Your task to perform on an android device: create a new album in the google photos Image 0: 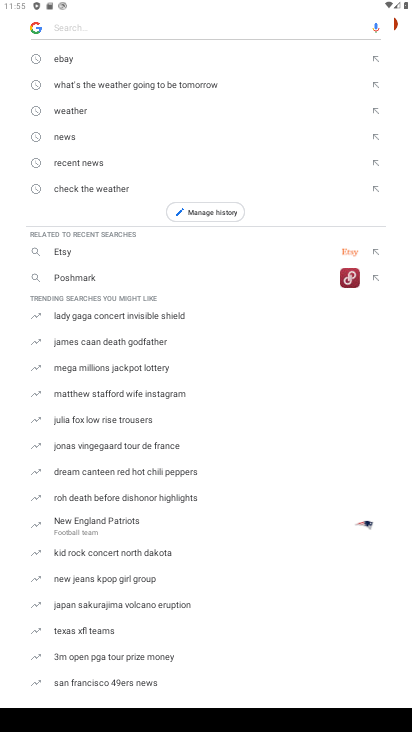
Step 0: click (385, 517)
Your task to perform on an android device: create a new album in the google photos Image 1: 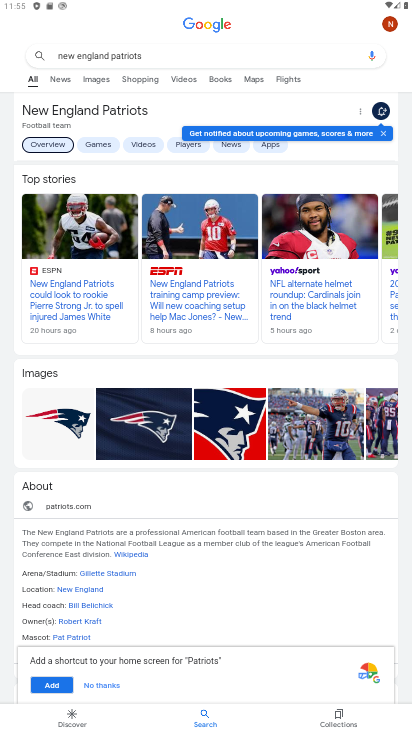
Step 1: press back button
Your task to perform on an android device: create a new album in the google photos Image 2: 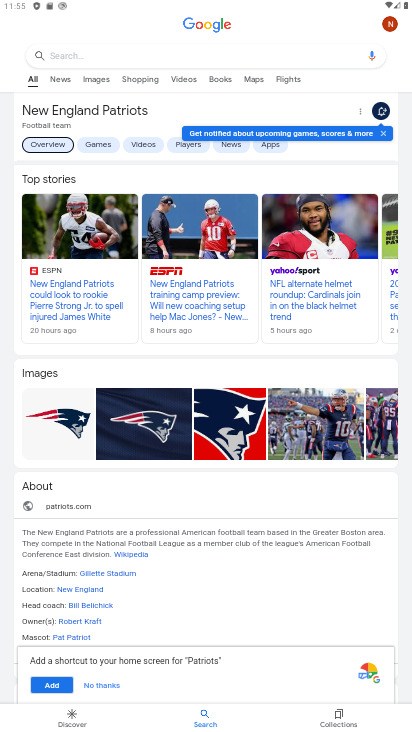
Step 2: press back button
Your task to perform on an android device: create a new album in the google photos Image 3: 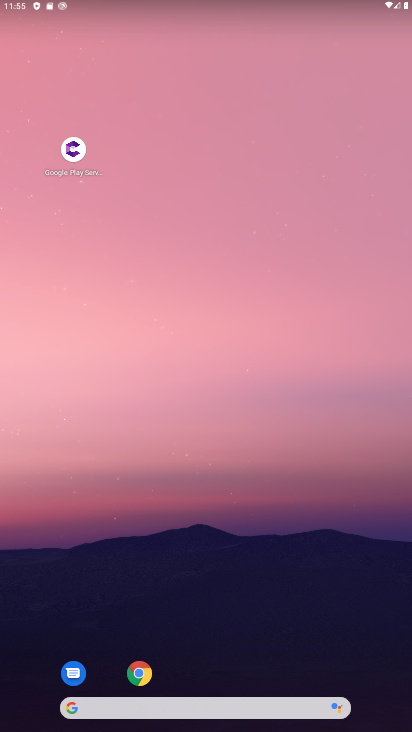
Step 3: click (264, 169)
Your task to perform on an android device: create a new album in the google photos Image 4: 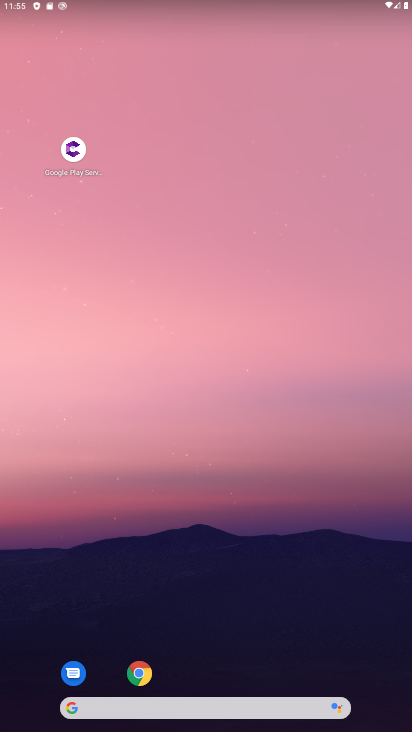
Step 4: click (197, 116)
Your task to perform on an android device: create a new album in the google photos Image 5: 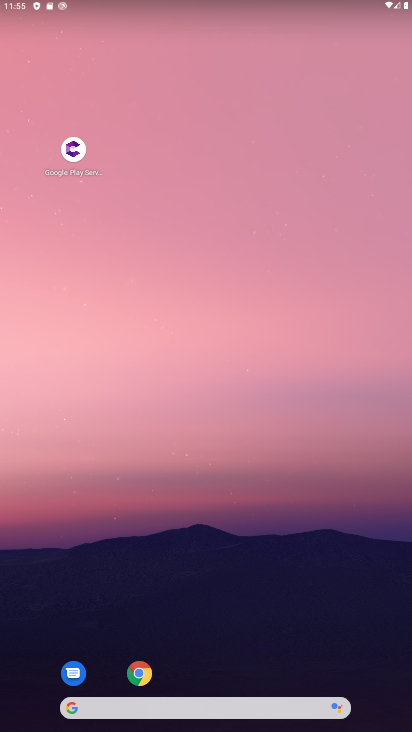
Step 5: drag from (272, 479) to (261, 17)
Your task to perform on an android device: create a new album in the google photos Image 6: 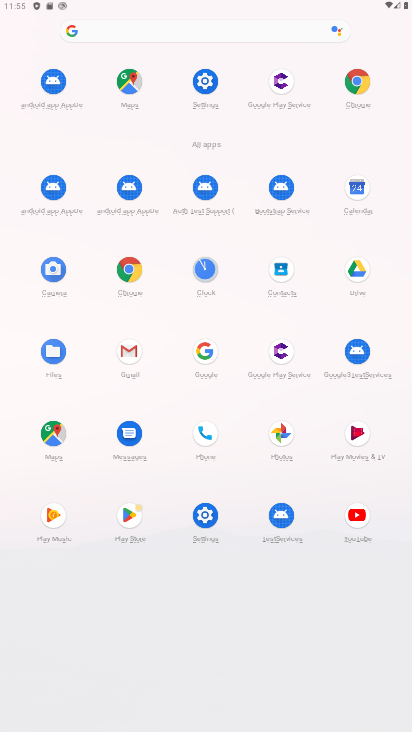
Step 6: drag from (263, 332) to (208, 12)
Your task to perform on an android device: create a new album in the google photos Image 7: 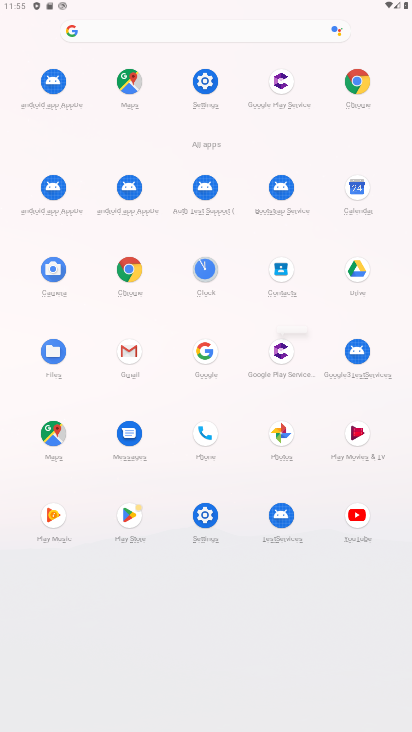
Step 7: click (190, 231)
Your task to perform on an android device: create a new album in the google photos Image 8: 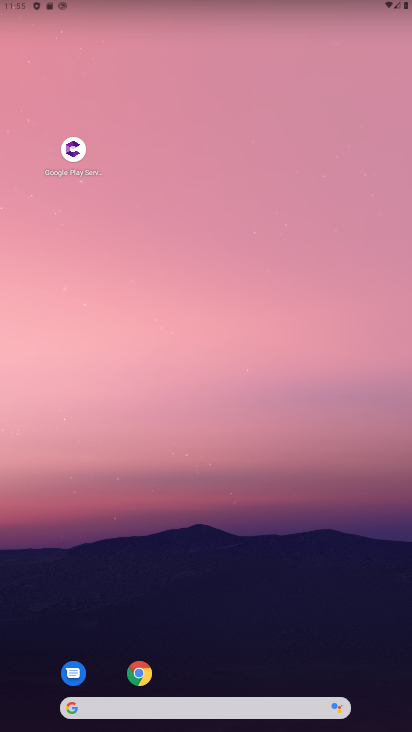
Step 8: click (283, 432)
Your task to perform on an android device: create a new album in the google photos Image 9: 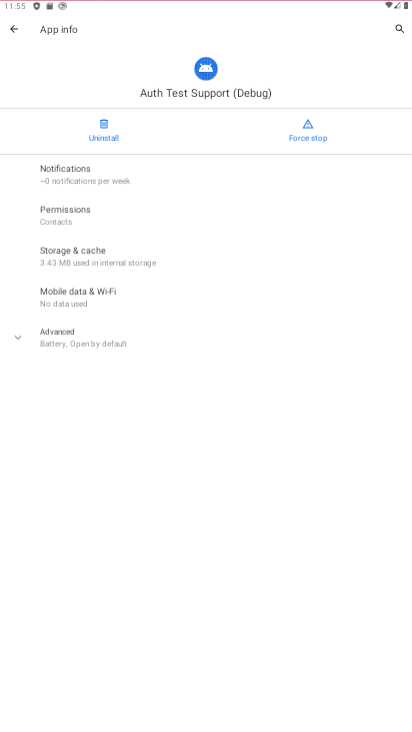
Step 9: click (284, 438)
Your task to perform on an android device: create a new album in the google photos Image 10: 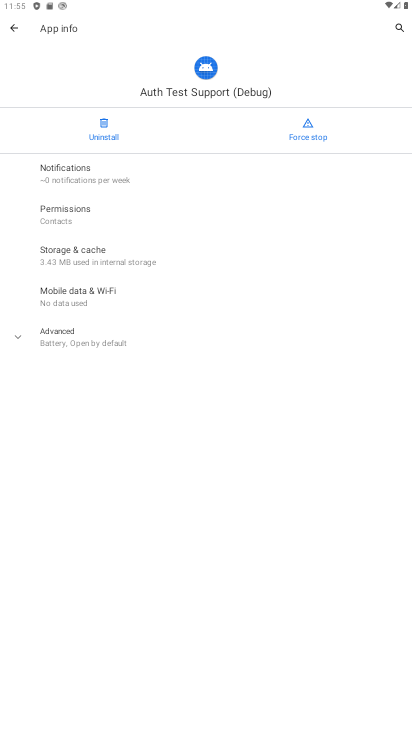
Step 10: click (283, 426)
Your task to perform on an android device: create a new album in the google photos Image 11: 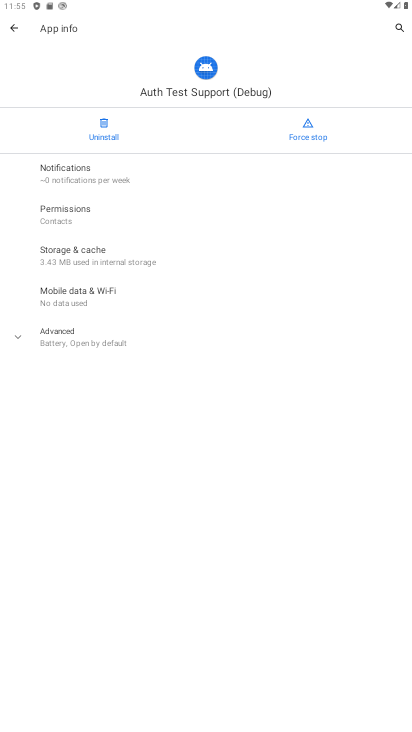
Step 11: click (284, 428)
Your task to perform on an android device: create a new album in the google photos Image 12: 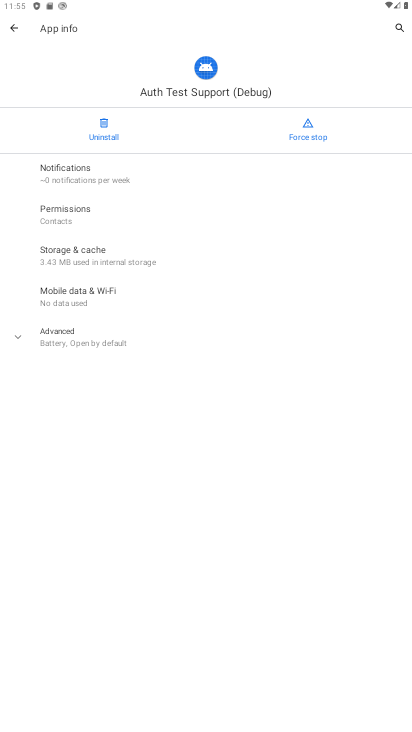
Step 12: drag from (215, 135) to (11, 31)
Your task to perform on an android device: create a new album in the google photos Image 13: 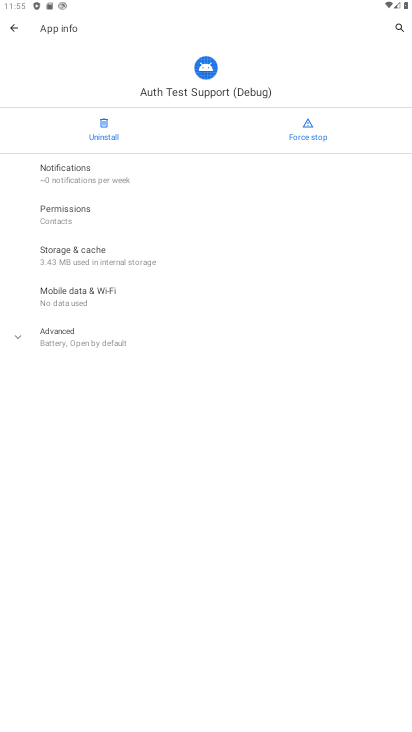
Step 13: click (6, 16)
Your task to perform on an android device: create a new album in the google photos Image 14: 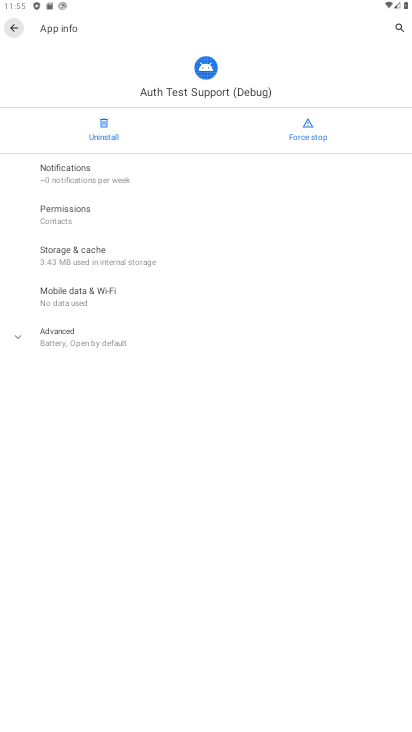
Step 14: click (19, 32)
Your task to perform on an android device: create a new album in the google photos Image 15: 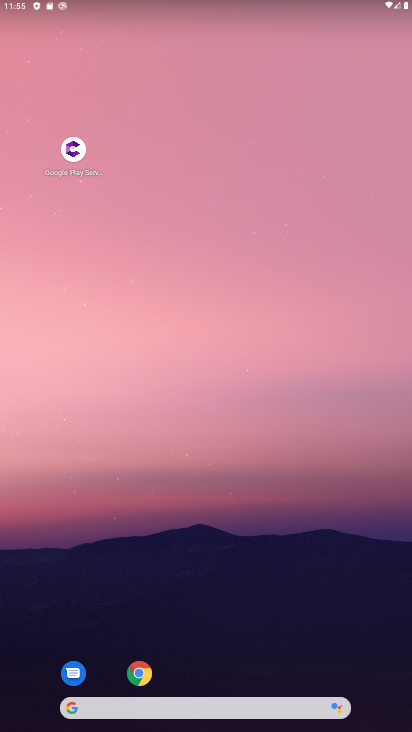
Step 15: drag from (181, 620) to (135, 81)
Your task to perform on an android device: create a new album in the google photos Image 16: 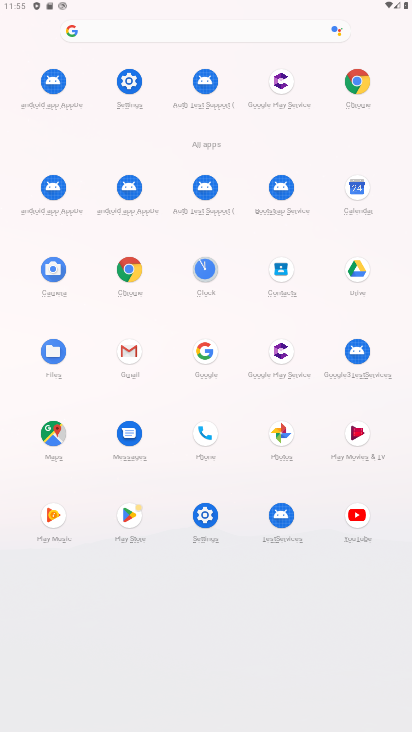
Step 16: click (279, 426)
Your task to perform on an android device: create a new album in the google photos Image 17: 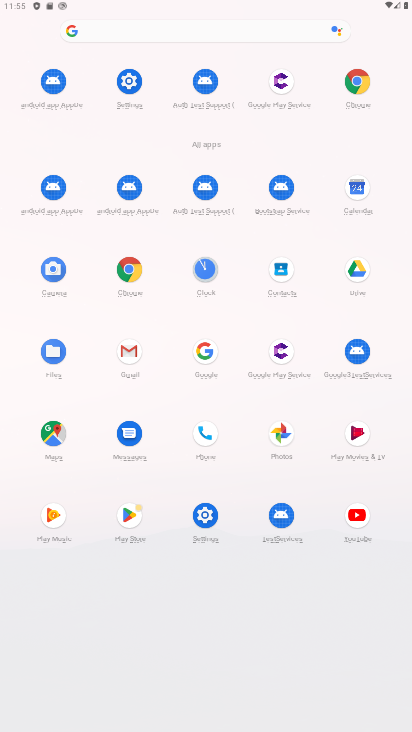
Step 17: click (281, 424)
Your task to perform on an android device: create a new album in the google photos Image 18: 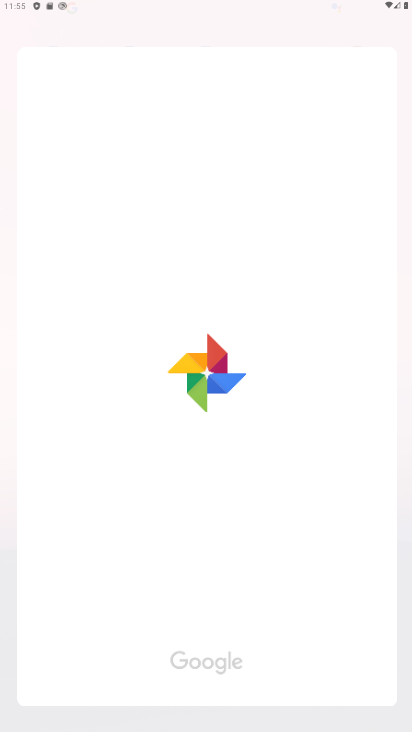
Step 18: click (283, 426)
Your task to perform on an android device: create a new album in the google photos Image 19: 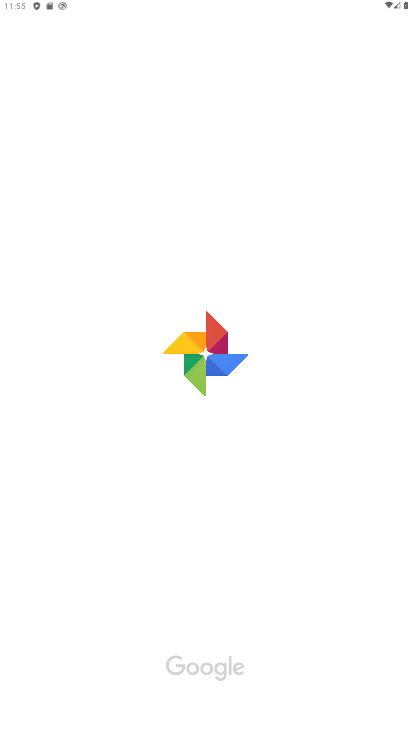
Step 19: click (283, 426)
Your task to perform on an android device: create a new album in the google photos Image 20: 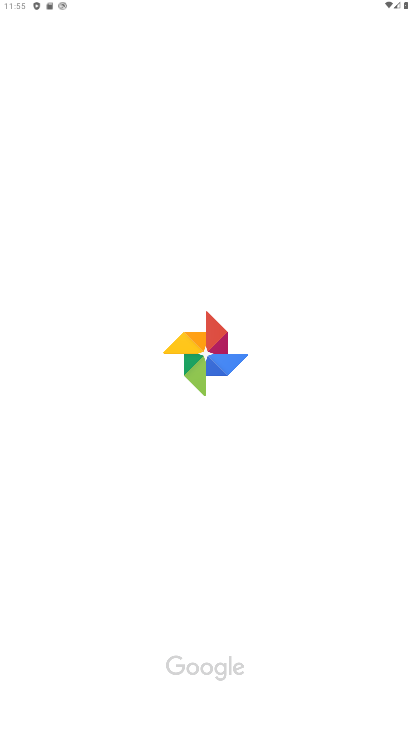
Step 20: click (283, 426)
Your task to perform on an android device: create a new album in the google photos Image 21: 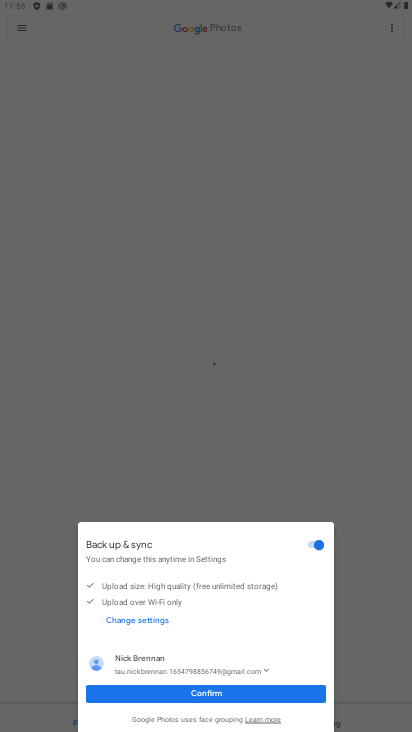
Step 21: click (201, 692)
Your task to perform on an android device: create a new album in the google photos Image 22: 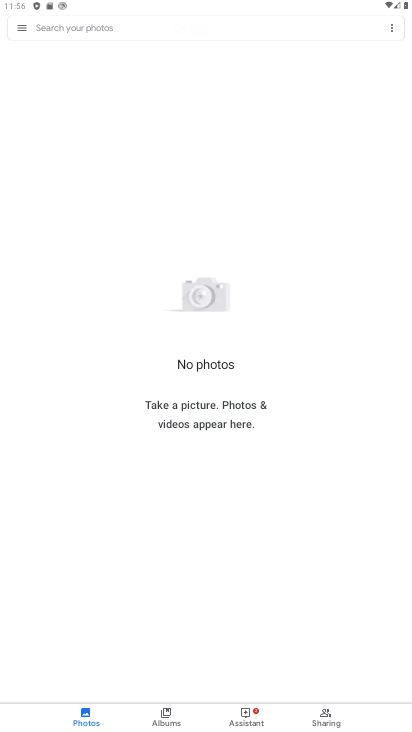
Step 22: click (116, 359)
Your task to perform on an android device: create a new album in the google photos Image 23: 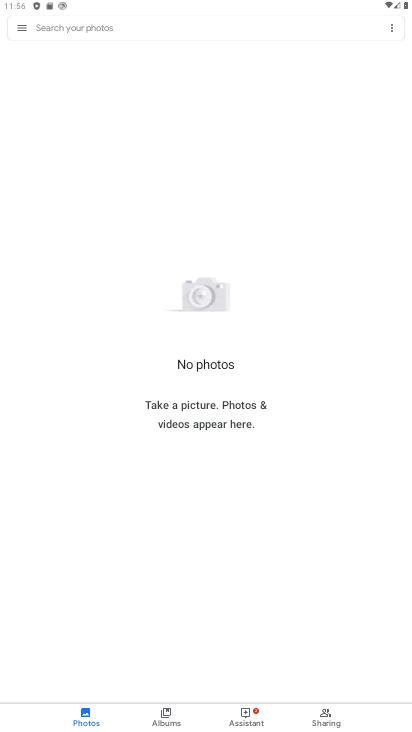
Step 23: click (169, 715)
Your task to perform on an android device: create a new album in the google photos Image 24: 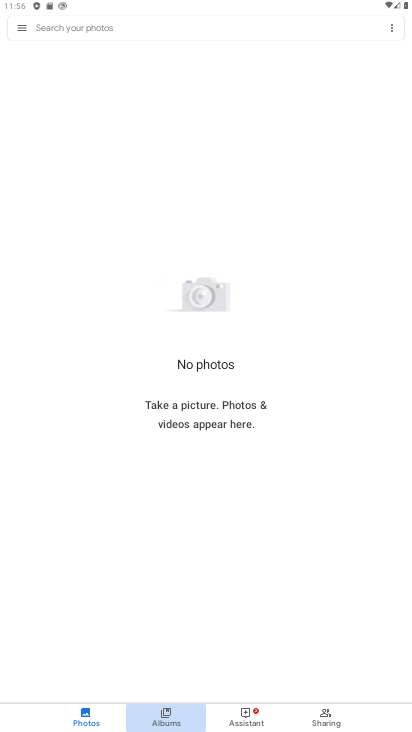
Step 24: click (169, 715)
Your task to perform on an android device: create a new album in the google photos Image 25: 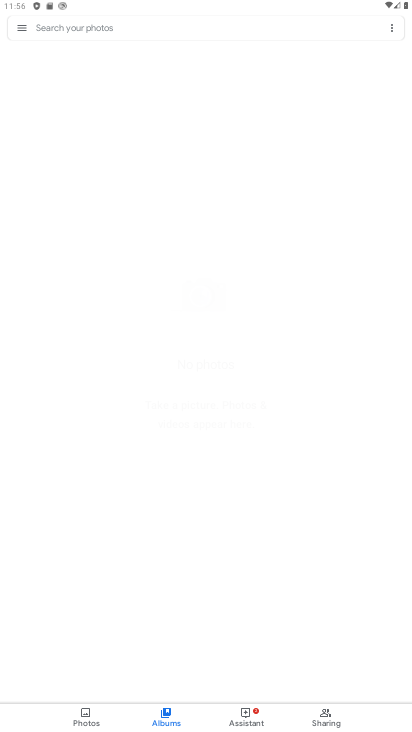
Step 25: click (169, 715)
Your task to perform on an android device: create a new album in the google photos Image 26: 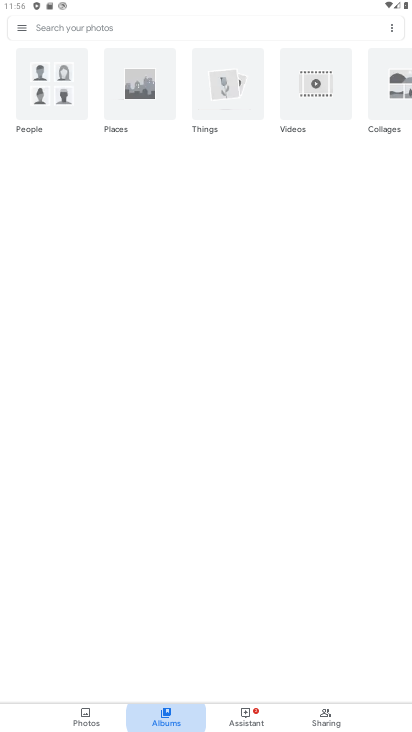
Step 26: click (169, 715)
Your task to perform on an android device: create a new album in the google photos Image 27: 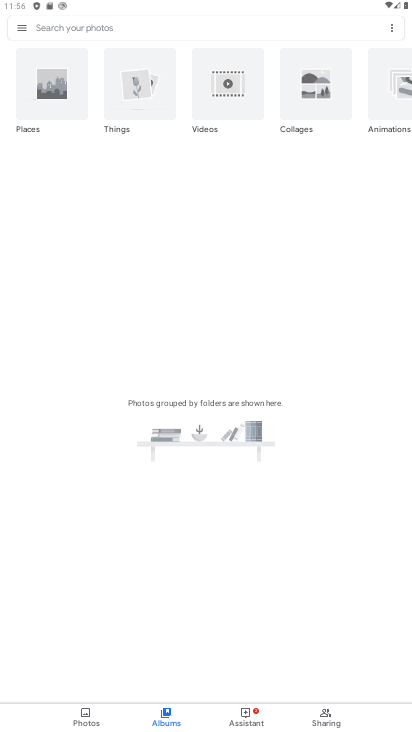
Step 27: click (90, 715)
Your task to perform on an android device: create a new album in the google photos Image 28: 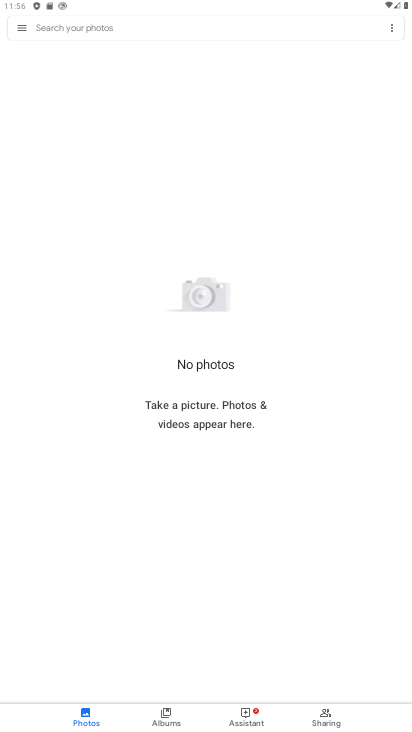
Step 28: task complete